Your task to perform on an android device: Go to network settings Image 0: 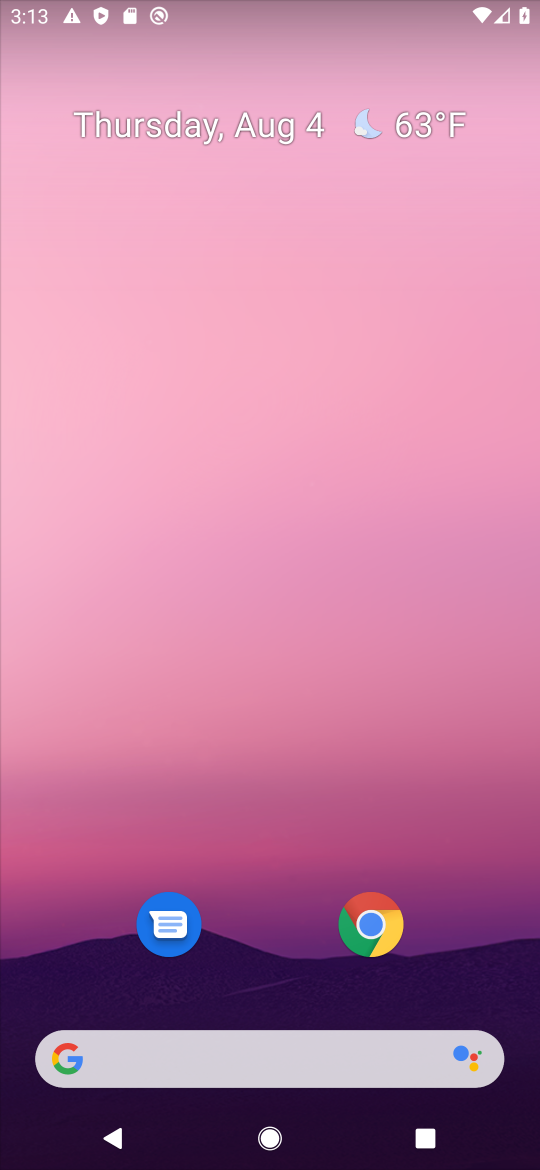
Step 0: drag from (293, 913) to (394, 94)
Your task to perform on an android device: Go to network settings Image 1: 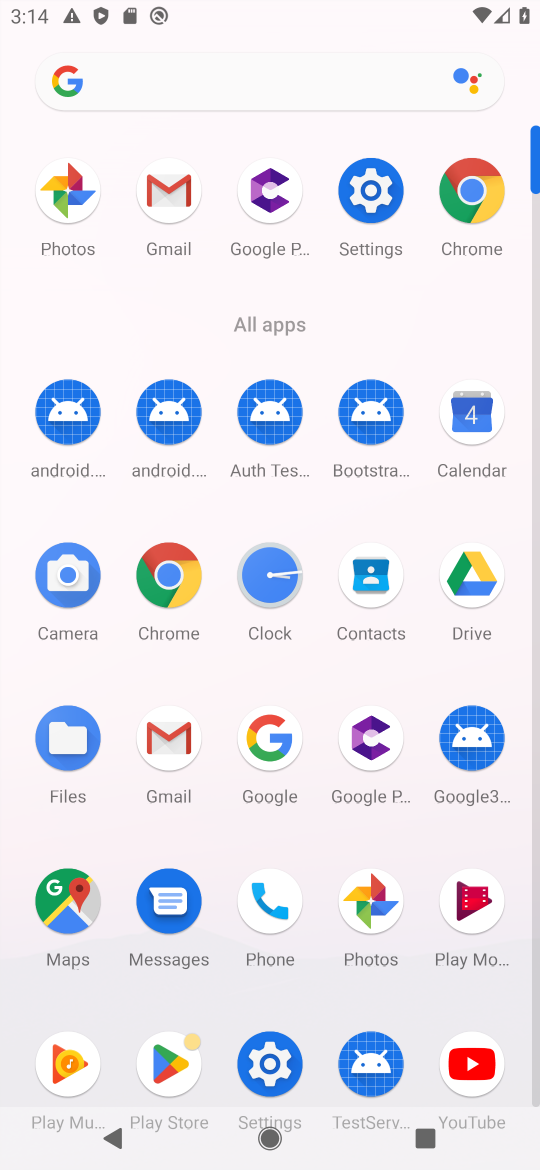
Step 1: click (368, 189)
Your task to perform on an android device: Go to network settings Image 2: 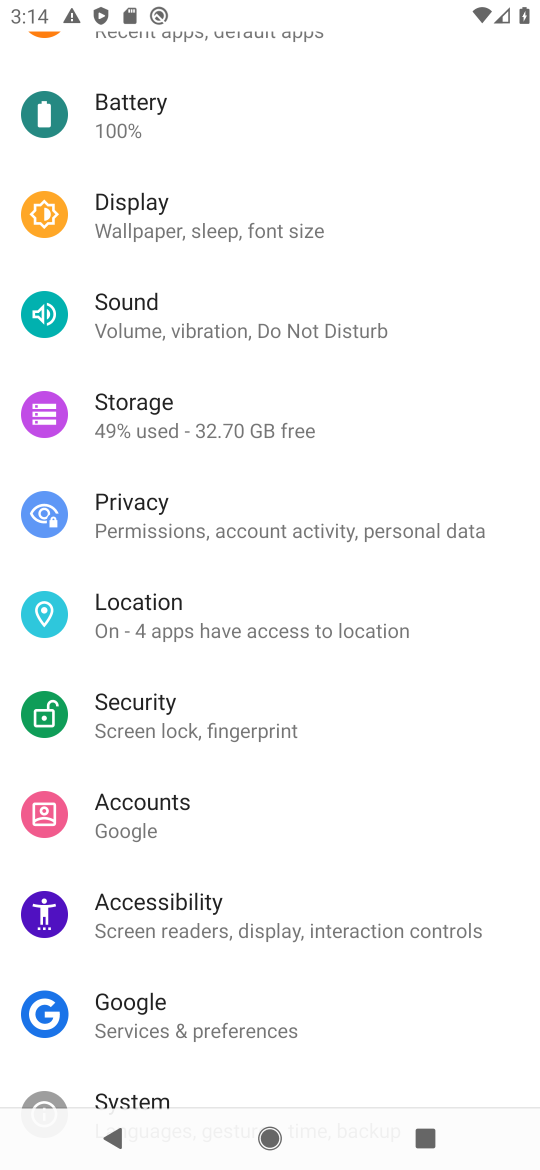
Step 2: drag from (329, 162) to (192, 683)
Your task to perform on an android device: Go to network settings Image 3: 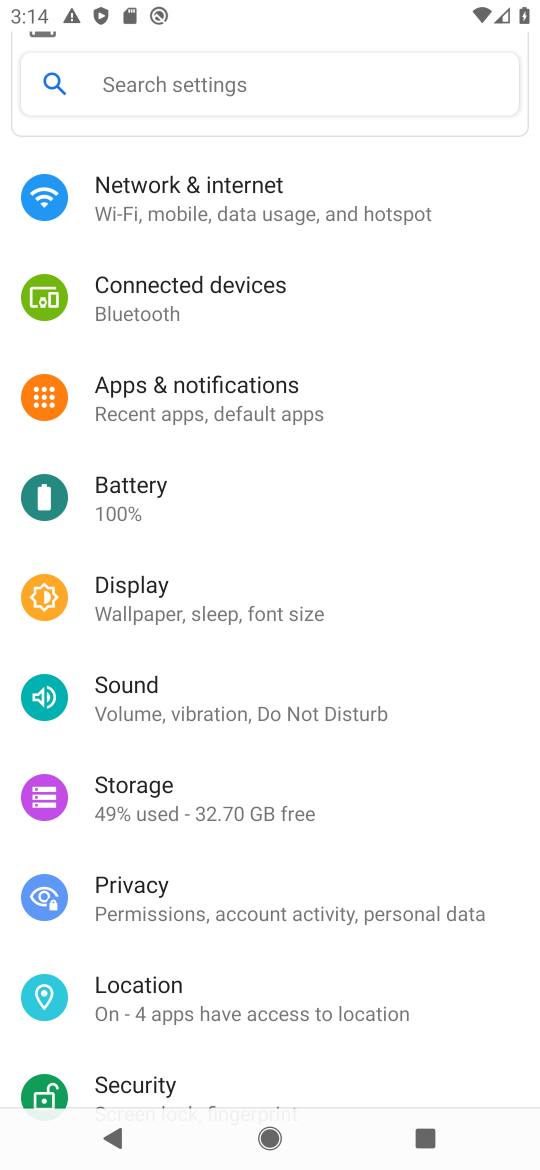
Step 3: click (237, 185)
Your task to perform on an android device: Go to network settings Image 4: 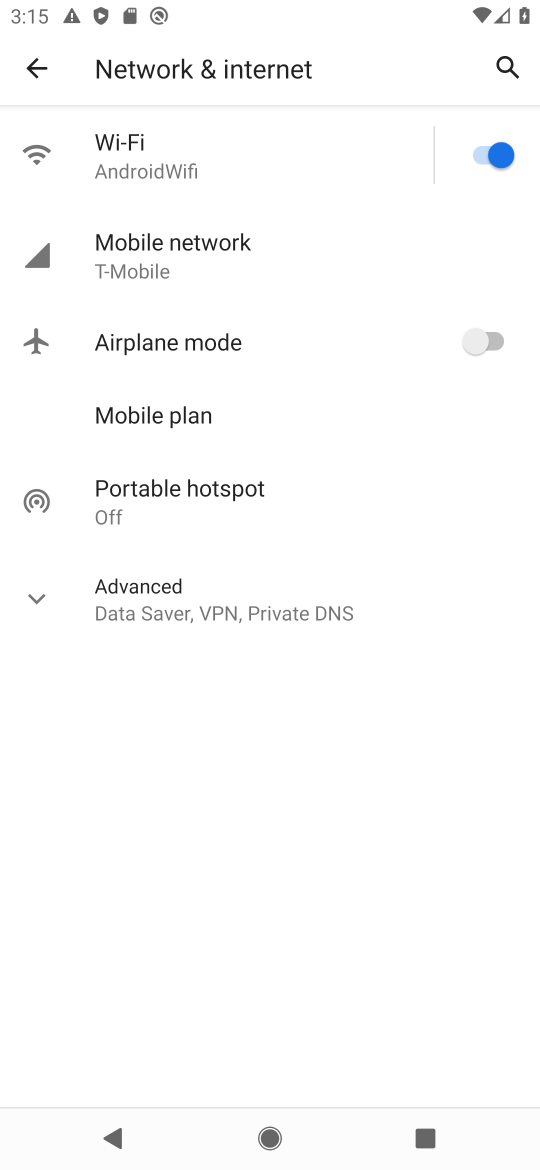
Step 4: task complete